Your task to perform on an android device: turn off airplane mode Image 0: 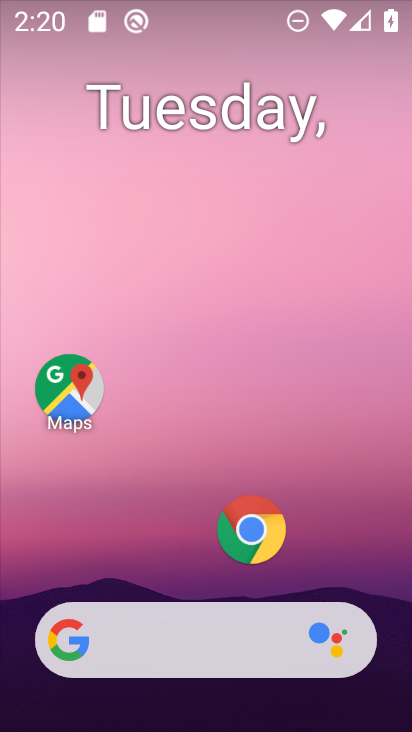
Step 0: drag from (281, 661) to (241, 191)
Your task to perform on an android device: turn off airplane mode Image 1: 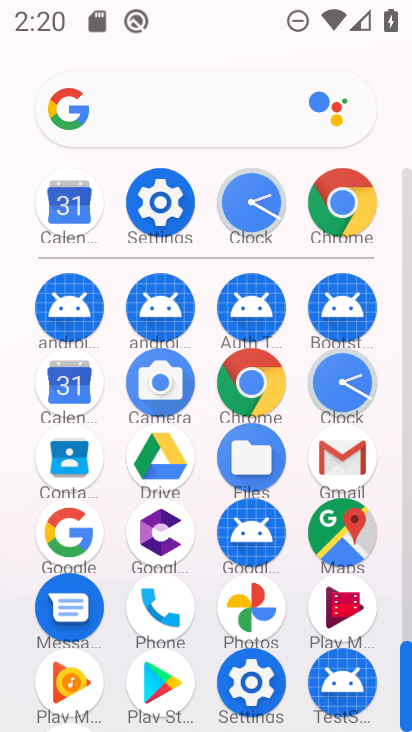
Step 1: click (161, 210)
Your task to perform on an android device: turn off airplane mode Image 2: 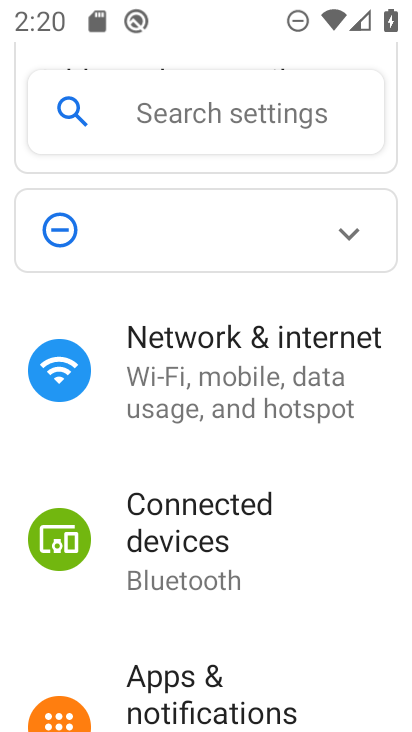
Step 2: click (223, 358)
Your task to perform on an android device: turn off airplane mode Image 3: 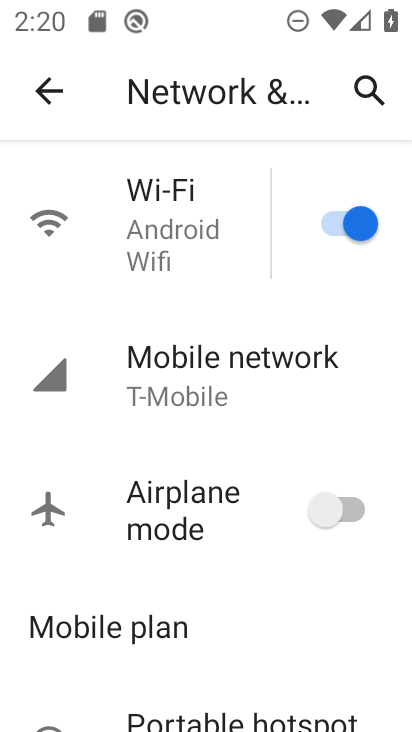
Step 3: click (348, 513)
Your task to perform on an android device: turn off airplane mode Image 4: 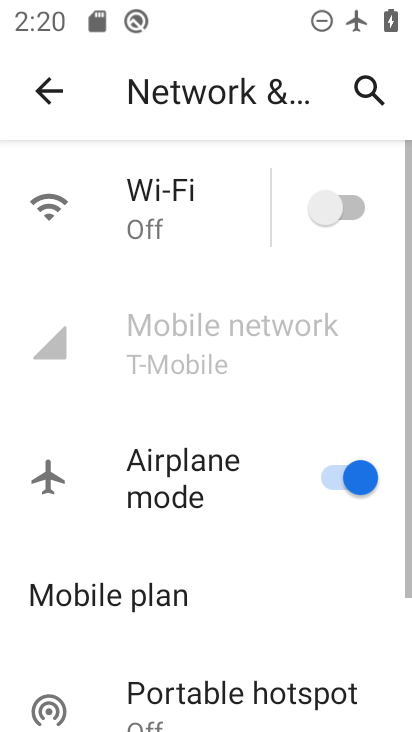
Step 4: click (355, 496)
Your task to perform on an android device: turn off airplane mode Image 5: 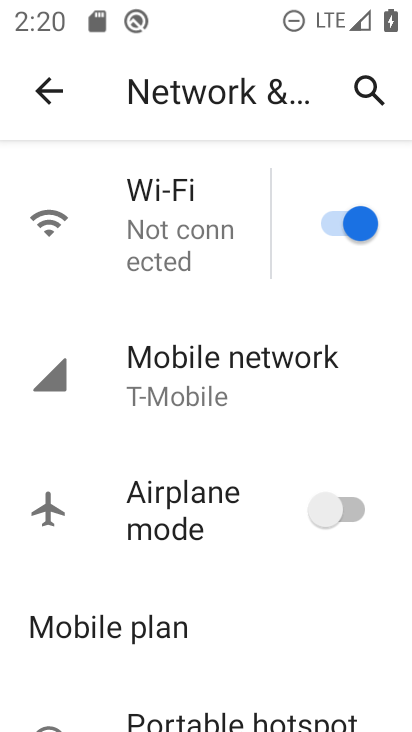
Step 5: task complete